Your task to perform on an android device: check android version Image 0: 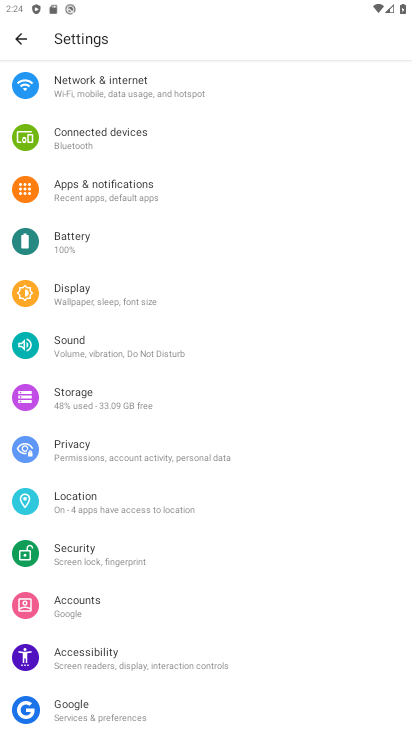
Step 0: drag from (195, 690) to (196, 204)
Your task to perform on an android device: check android version Image 1: 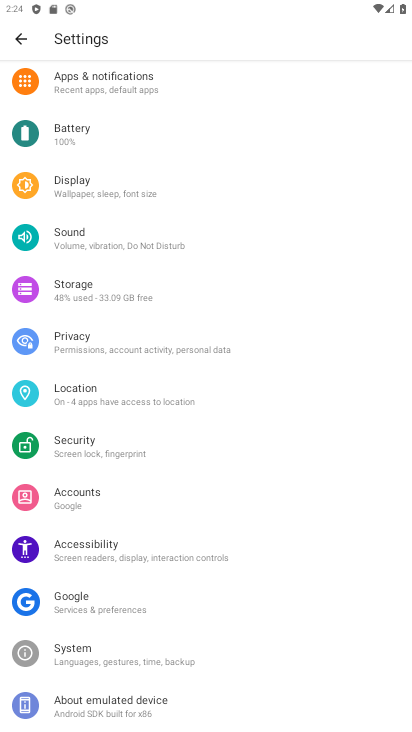
Step 1: click (99, 700)
Your task to perform on an android device: check android version Image 2: 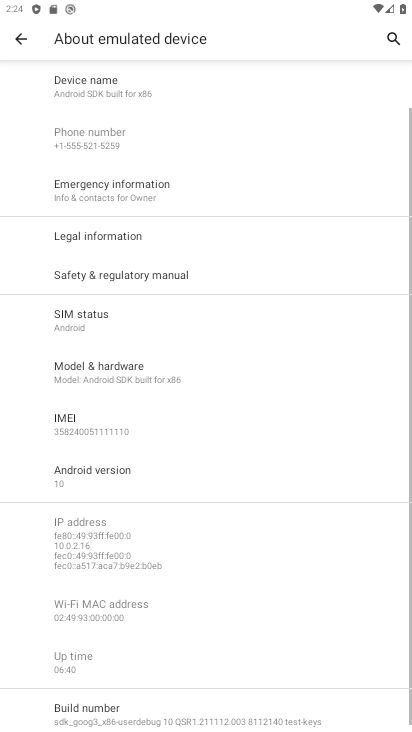
Step 2: click (134, 484)
Your task to perform on an android device: check android version Image 3: 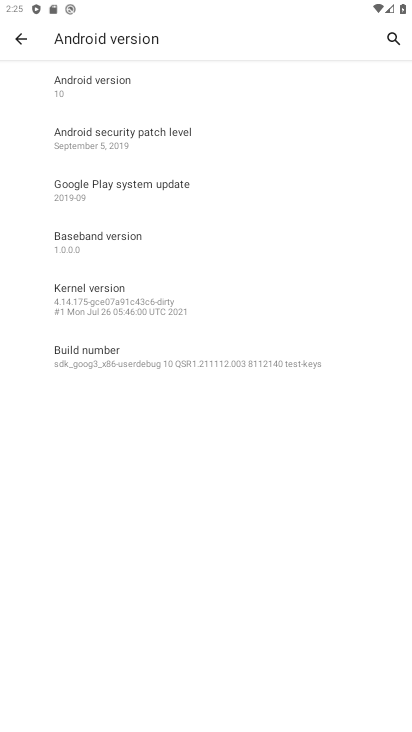
Step 3: task complete